Your task to perform on an android device: Add "macbook pro" to the cart on newegg Image 0: 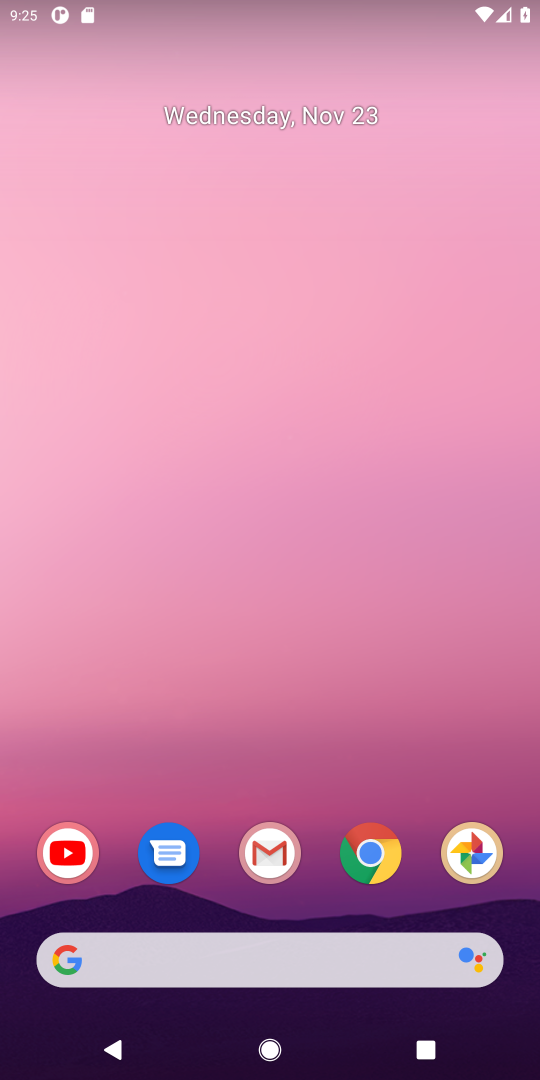
Step 0: click (379, 852)
Your task to perform on an android device: Add "macbook pro" to the cart on newegg Image 1: 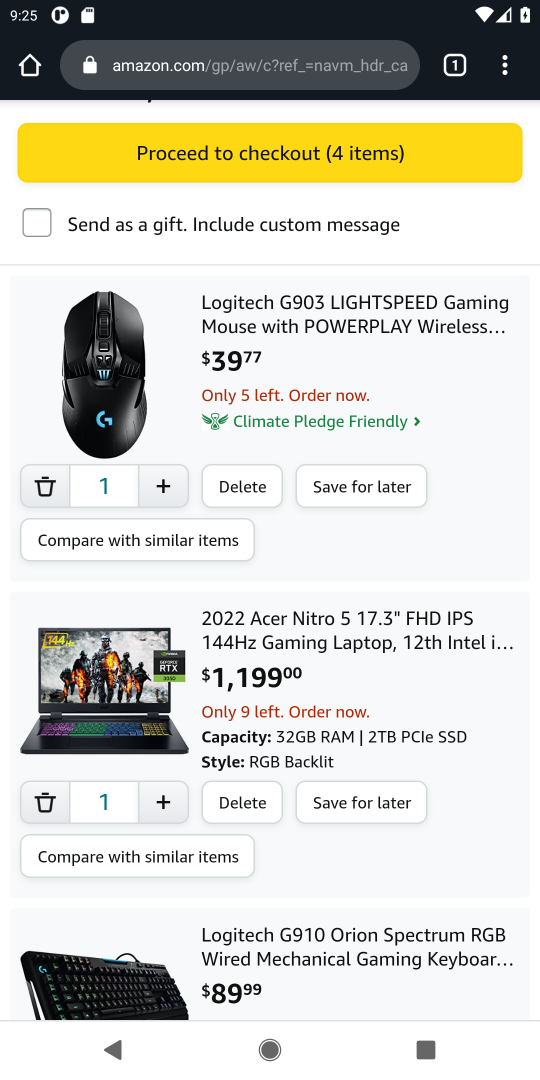
Step 1: click (228, 71)
Your task to perform on an android device: Add "macbook pro" to the cart on newegg Image 2: 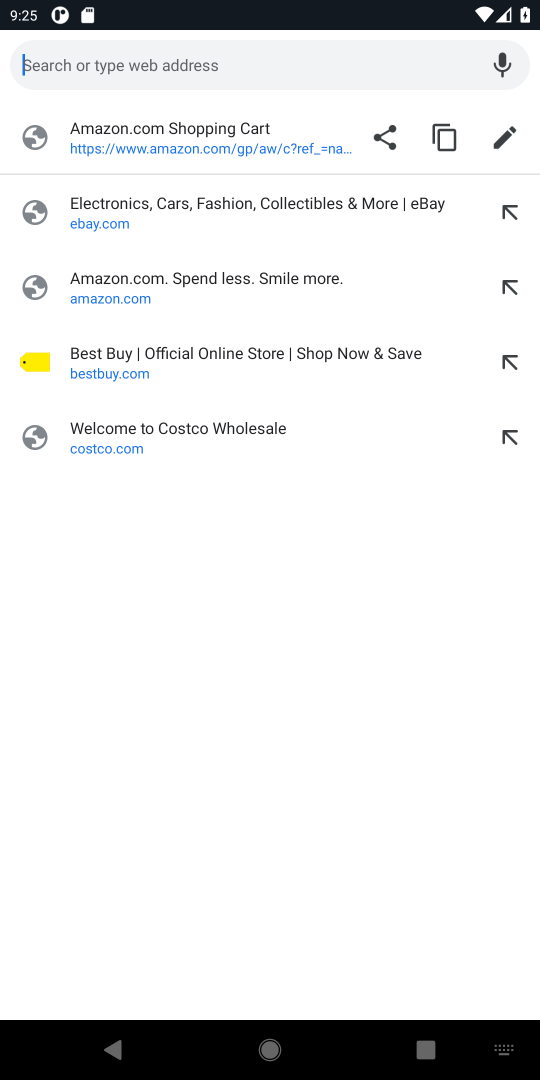
Step 2: type "newegg.com"
Your task to perform on an android device: Add "macbook pro" to the cart on newegg Image 3: 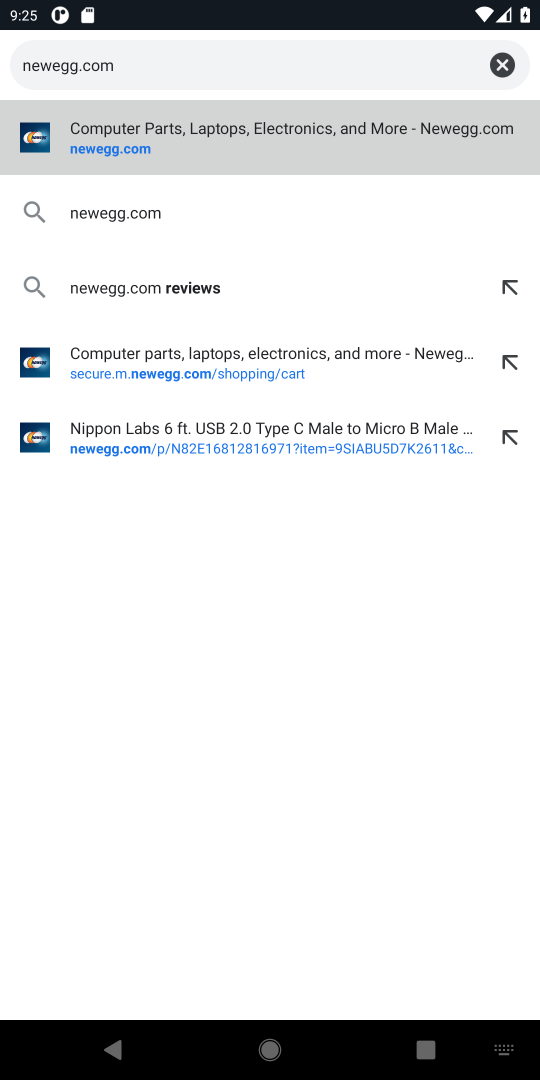
Step 3: click (96, 144)
Your task to perform on an android device: Add "macbook pro" to the cart on newegg Image 4: 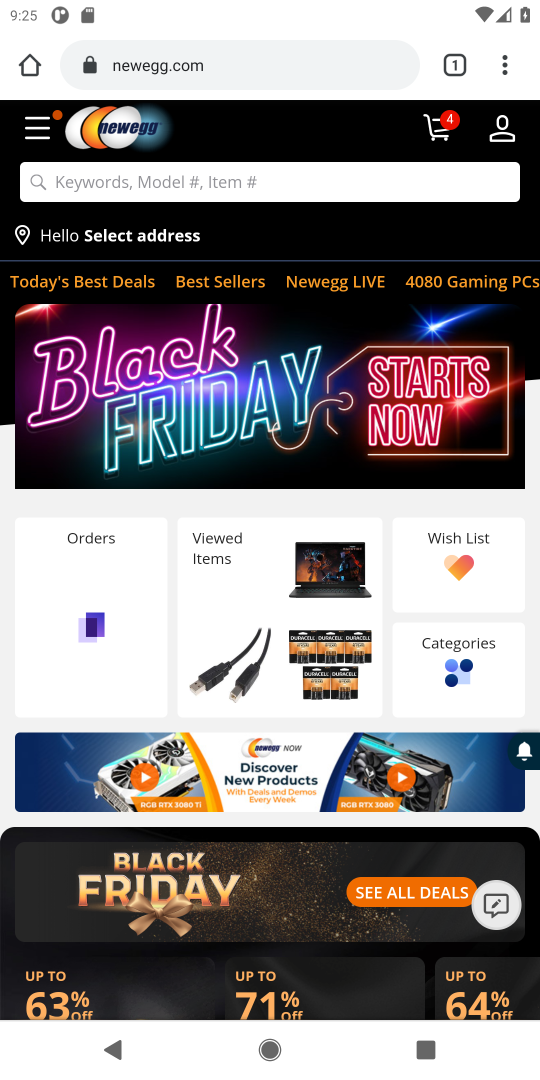
Step 4: click (158, 184)
Your task to perform on an android device: Add "macbook pro" to the cart on newegg Image 5: 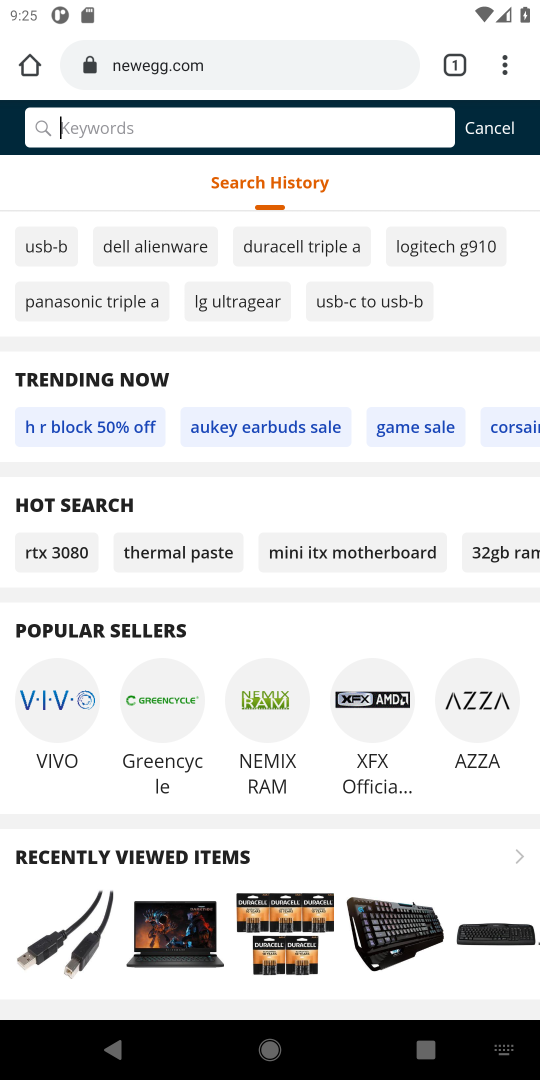
Step 5: type "macbook pro"
Your task to perform on an android device: Add "macbook pro" to the cart on newegg Image 6: 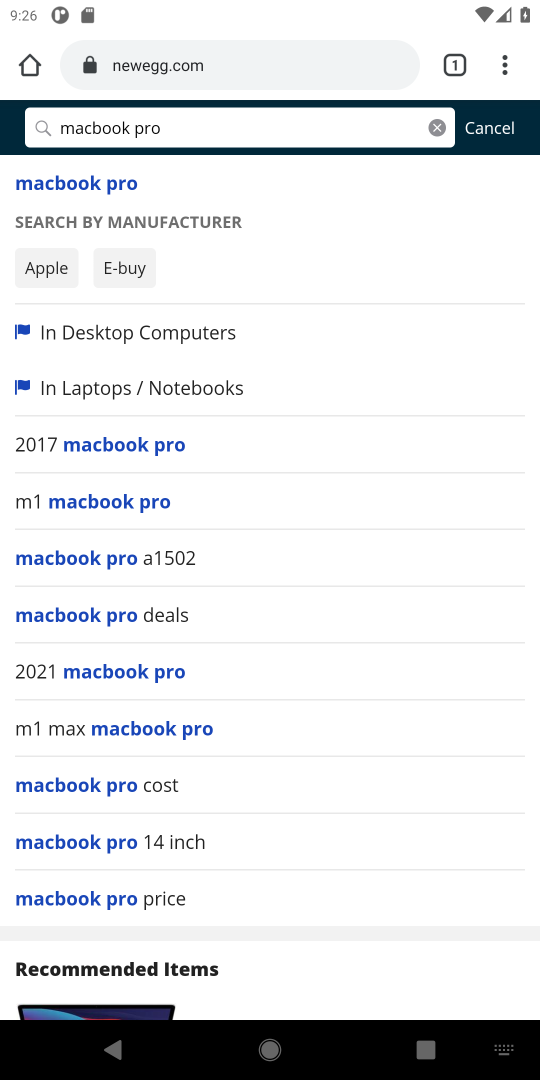
Step 6: click (46, 188)
Your task to perform on an android device: Add "macbook pro" to the cart on newegg Image 7: 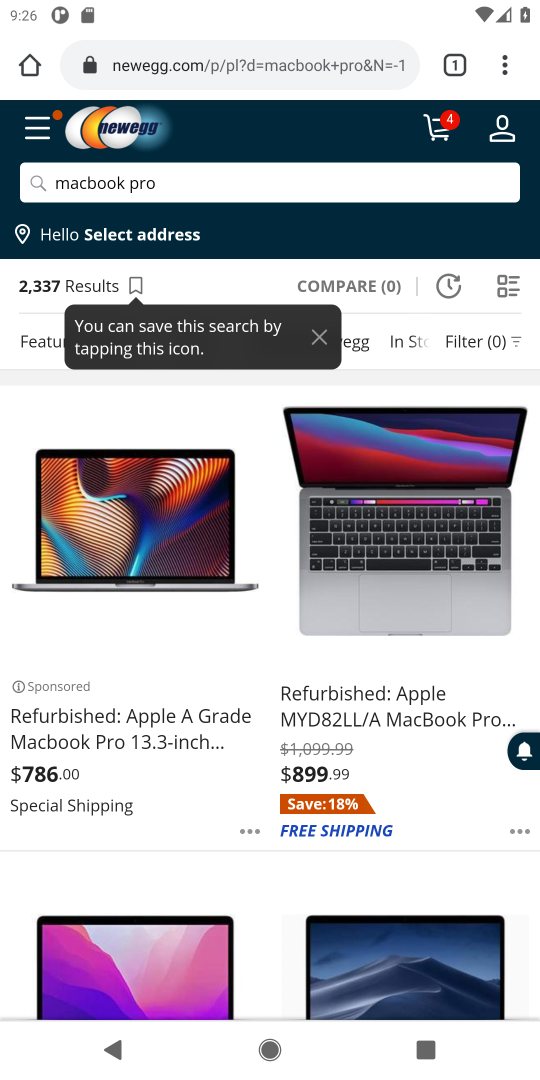
Step 7: click (121, 594)
Your task to perform on an android device: Add "macbook pro" to the cart on newegg Image 8: 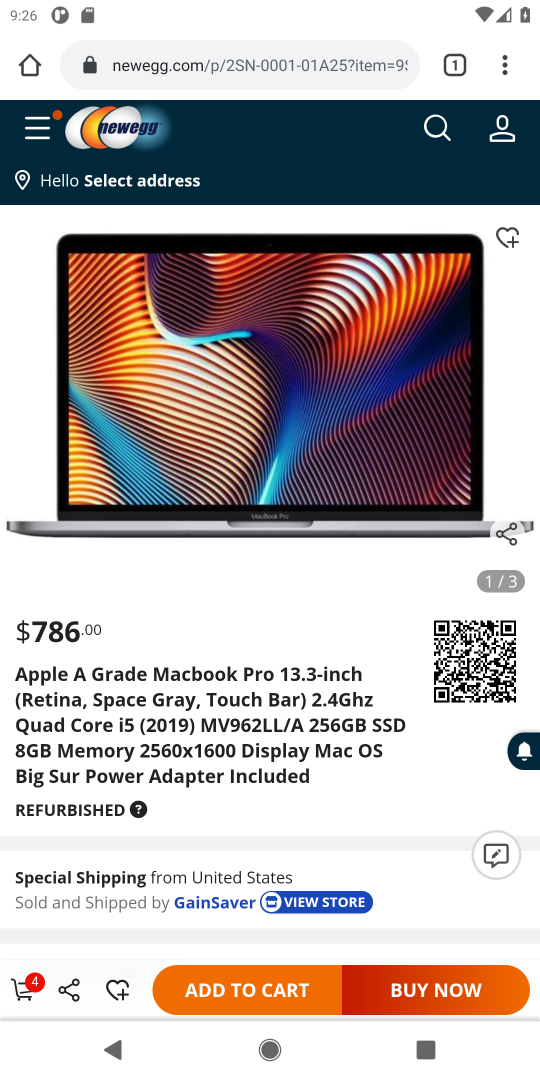
Step 8: click (243, 997)
Your task to perform on an android device: Add "macbook pro" to the cart on newegg Image 9: 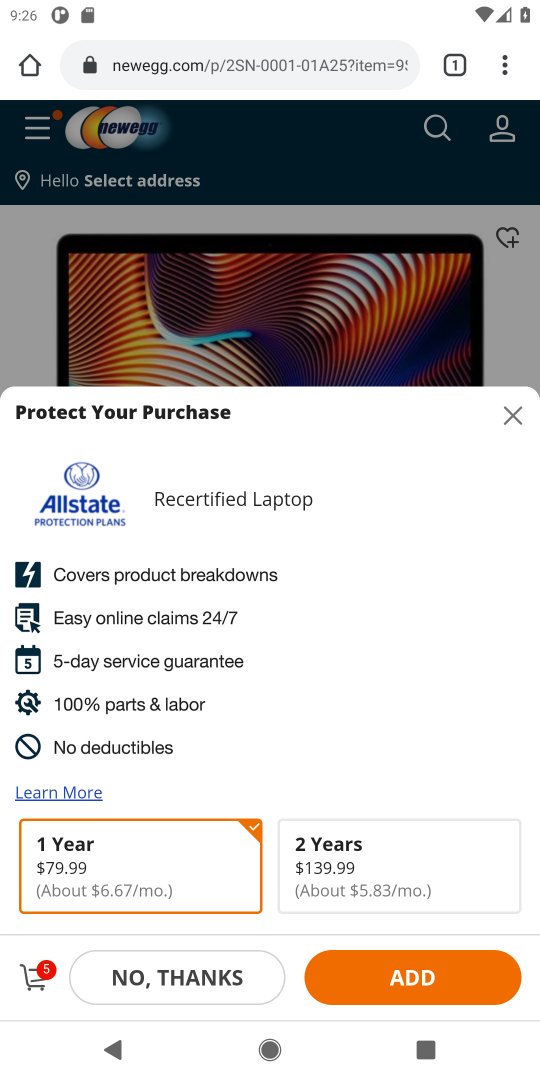
Step 9: task complete